Your task to perform on an android device: What's the weather going to be this weekend? Image 0: 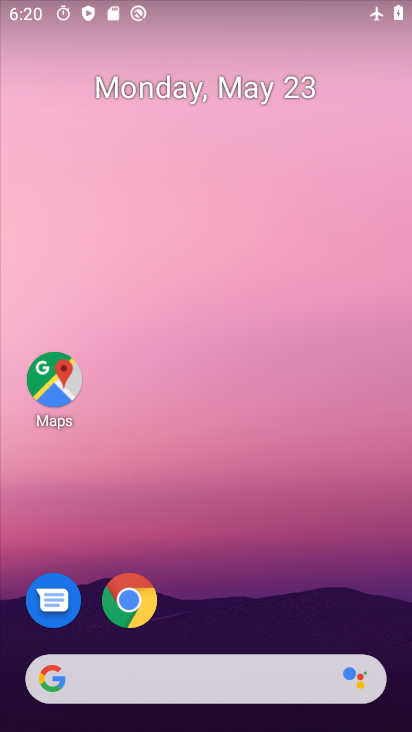
Step 0: drag from (236, 516) to (251, 228)
Your task to perform on an android device: What's the weather going to be this weekend? Image 1: 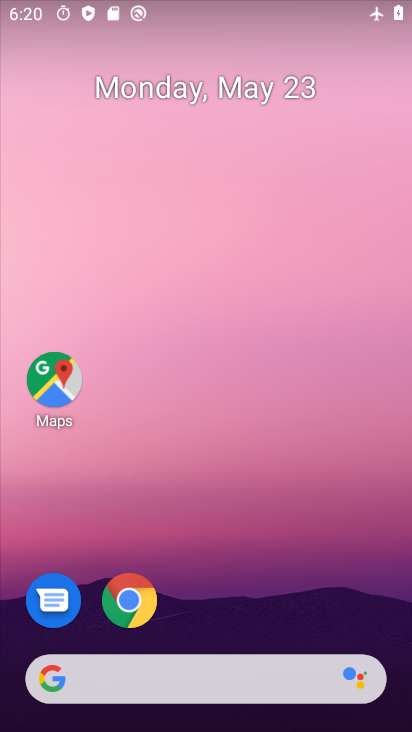
Step 1: drag from (264, 601) to (227, 130)
Your task to perform on an android device: What's the weather going to be this weekend? Image 2: 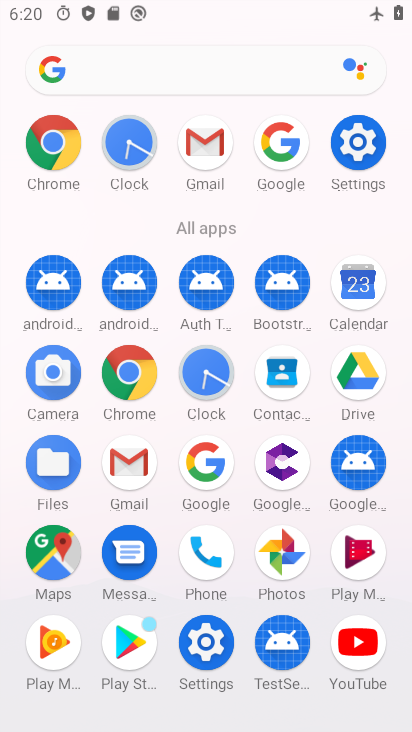
Step 2: click (187, 469)
Your task to perform on an android device: What's the weather going to be this weekend? Image 3: 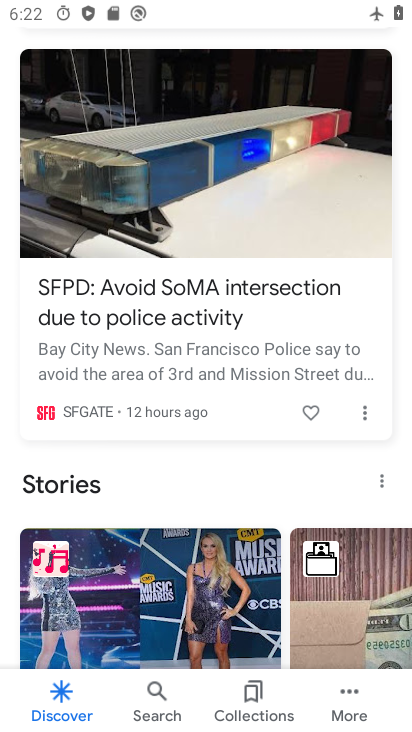
Step 3: drag from (105, 134) to (205, 659)
Your task to perform on an android device: What's the weather going to be this weekend? Image 4: 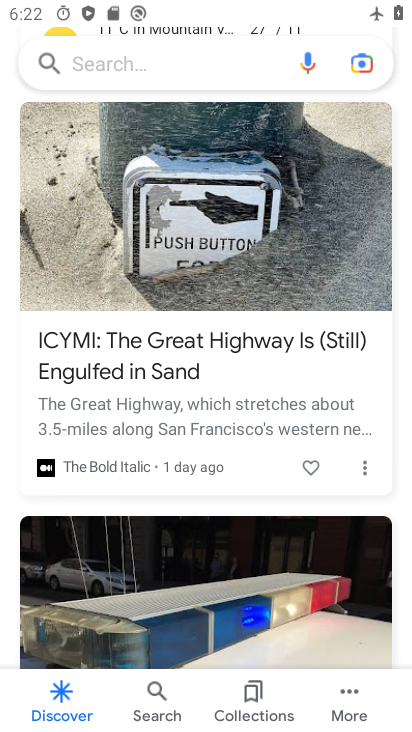
Step 4: drag from (210, 244) to (250, 721)
Your task to perform on an android device: What's the weather going to be this weekend? Image 5: 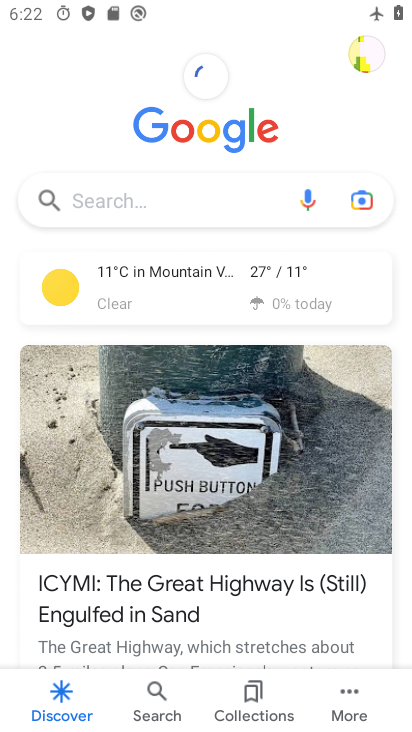
Step 5: click (202, 287)
Your task to perform on an android device: What's the weather going to be this weekend? Image 6: 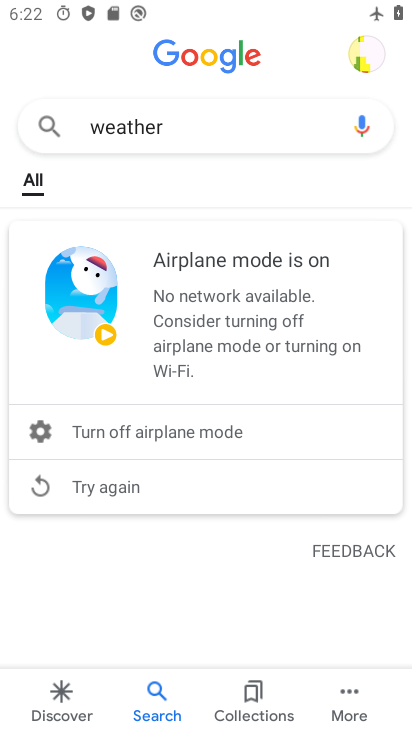
Step 6: task complete